Your task to perform on an android device: Go to internet settings Image 0: 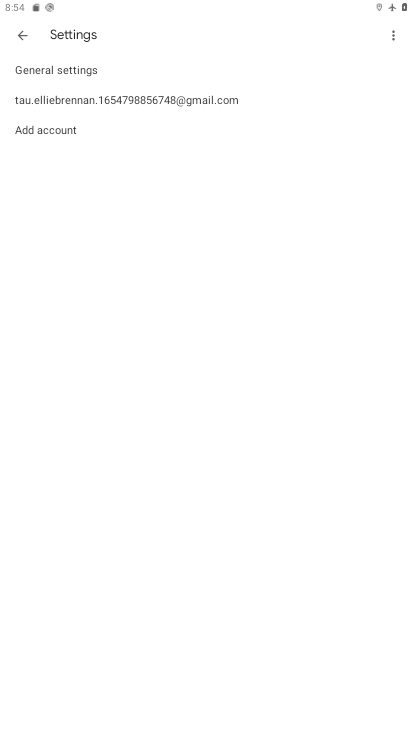
Step 0: press back button
Your task to perform on an android device: Go to internet settings Image 1: 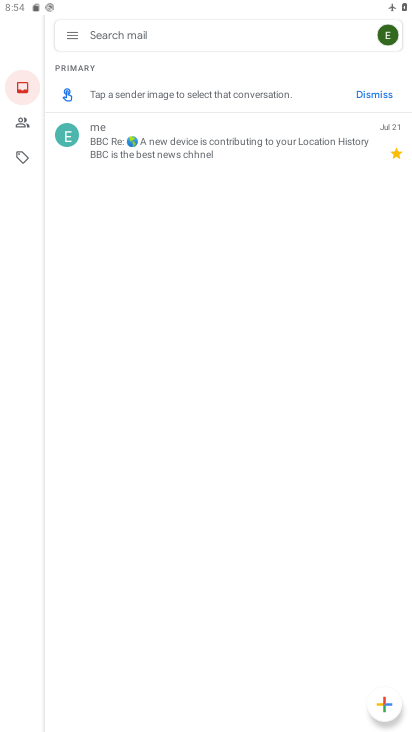
Step 1: press back button
Your task to perform on an android device: Go to internet settings Image 2: 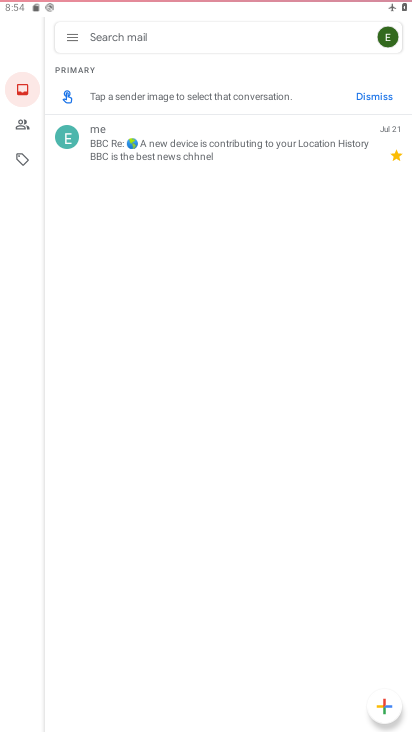
Step 2: press home button
Your task to perform on an android device: Go to internet settings Image 3: 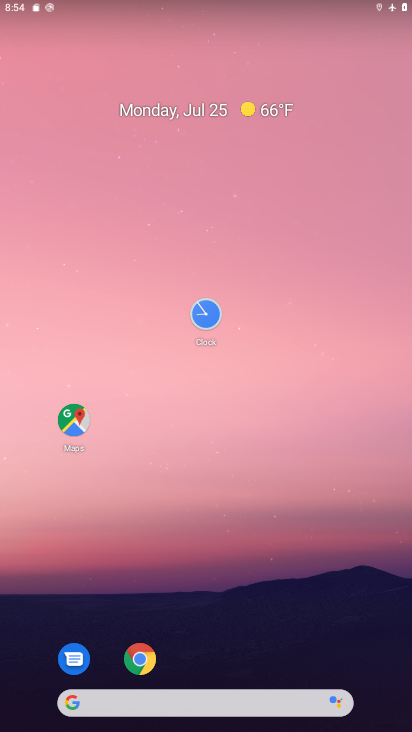
Step 3: drag from (242, 526) to (122, 106)
Your task to perform on an android device: Go to internet settings Image 4: 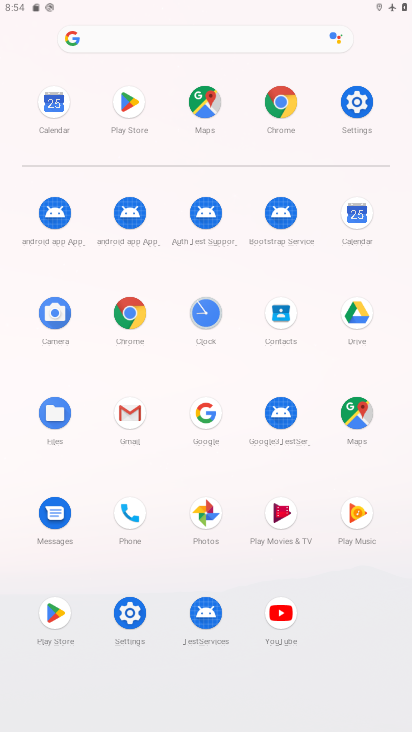
Step 4: click (350, 96)
Your task to perform on an android device: Go to internet settings Image 5: 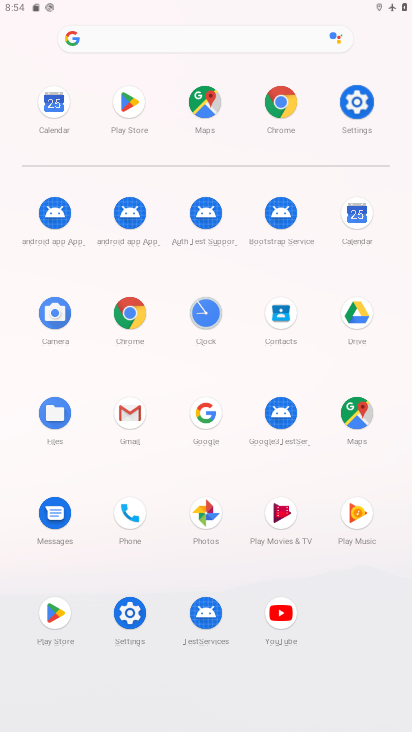
Step 5: click (350, 99)
Your task to perform on an android device: Go to internet settings Image 6: 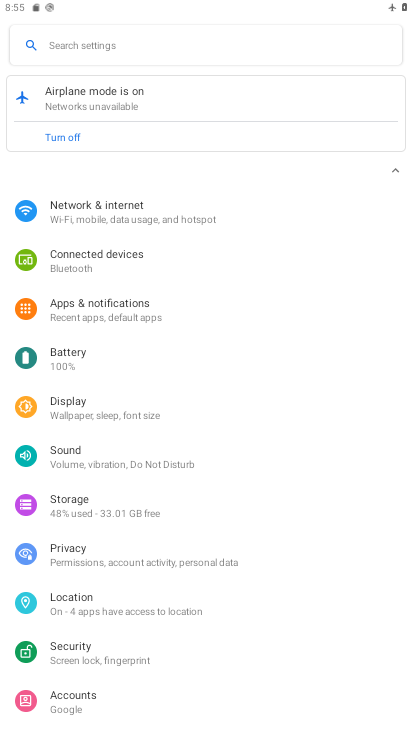
Step 6: click (98, 221)
Your task to perform on an android device: Go to internet settings Image 7: 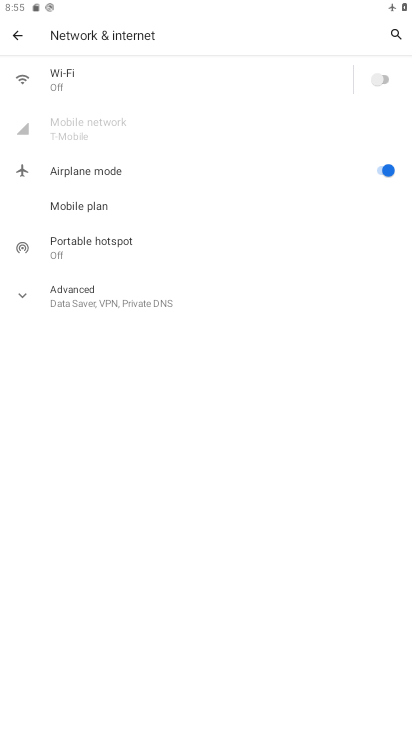
Step 7: click (376, 174)
Your task to perform on an android device: Go to internet settings Image 8: 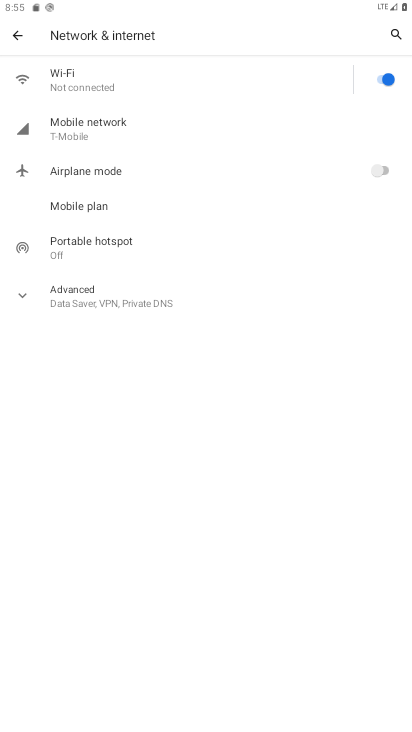
Step 8: task complete